Your task to perform on an android device: Is it going to rain today? Image 0: 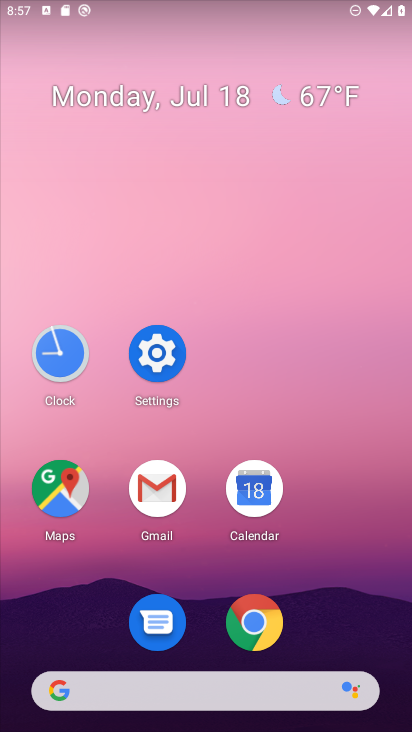
Step 0: drag from (400, 714) to (310, 64)
Your task to perform on an android device: Is it going to rain today? Image 1: 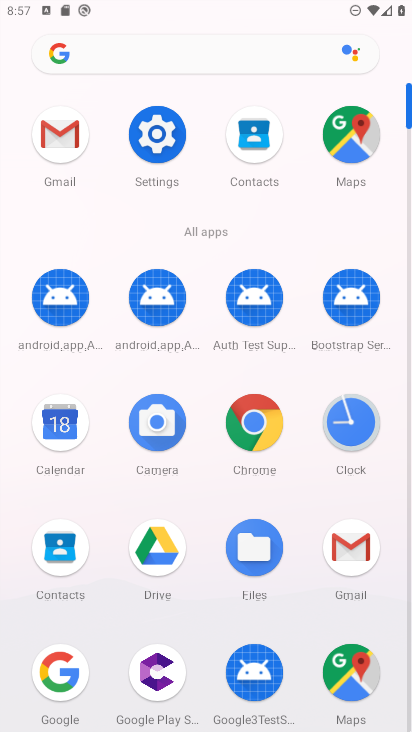
Step 1: click (70, 672)
Your task to perform on an android device: Is it going to rain today? Image 2: 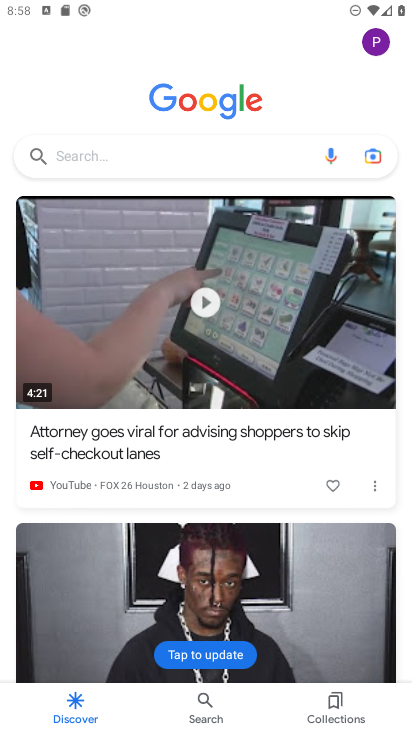
Step 2: task complete